Your task to perform on an android device: What's on the menu at Red Lobster? Image 0: 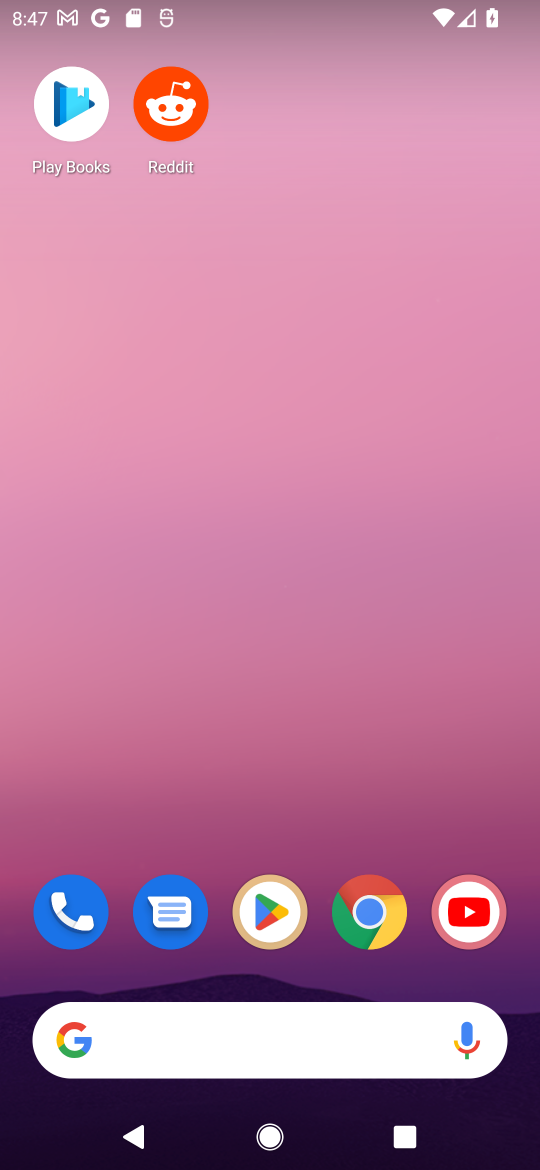
Step 0: click (376, 916)
Your task to perform on an android device: What's on the menu at Red Lobster? Image 1: 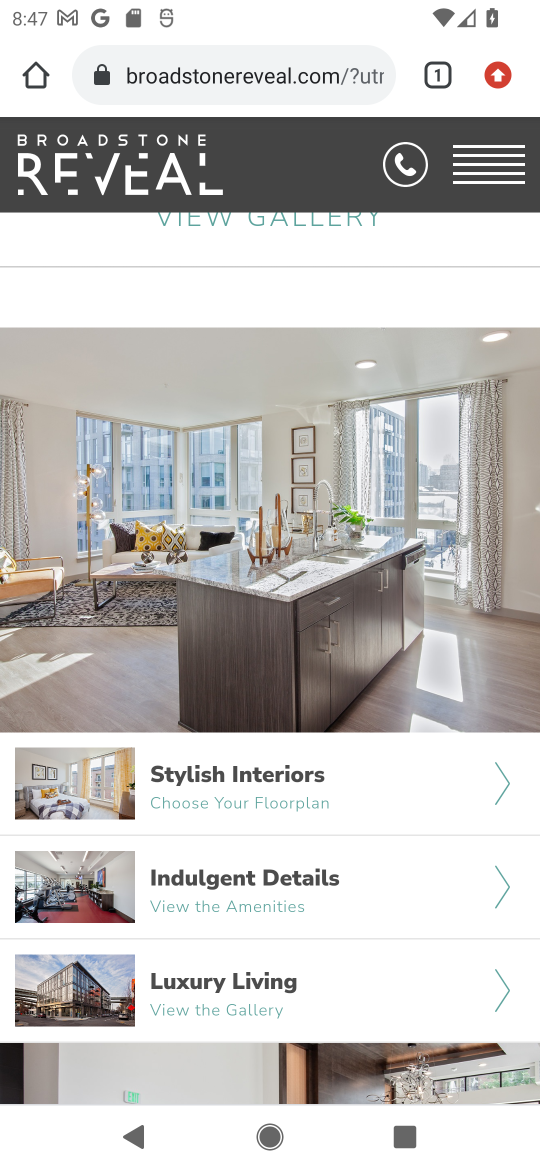
Step 1: click (297, 56)
Your task to perform on an android device: What's on the menu at Red Lobster? Image 2: 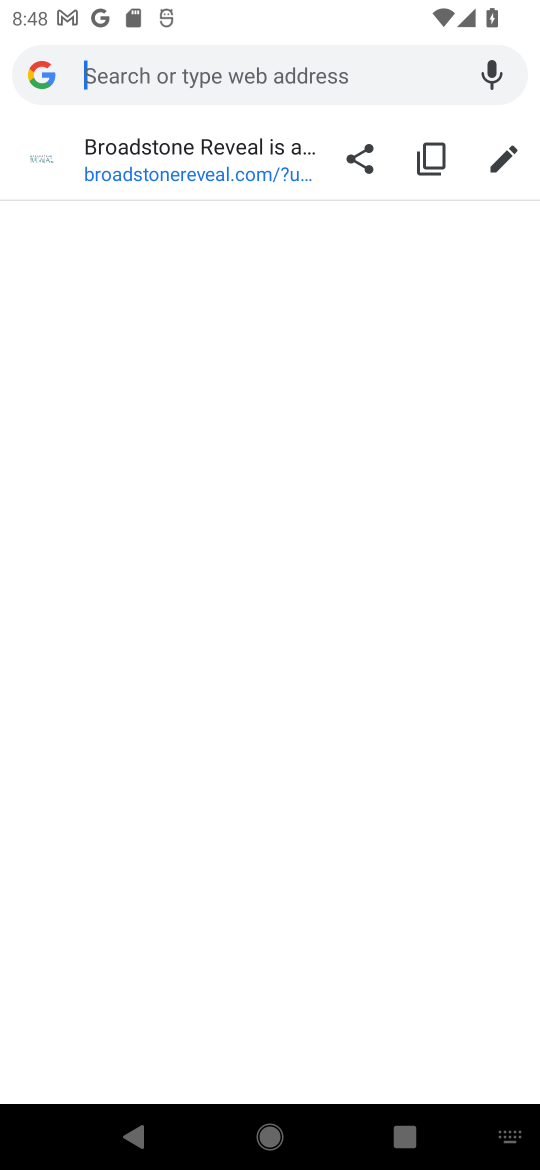
Step 2: type "menu at red lobster?"
Your task to perform on an android device: What's on the menu at Red Lobster? Image 3: 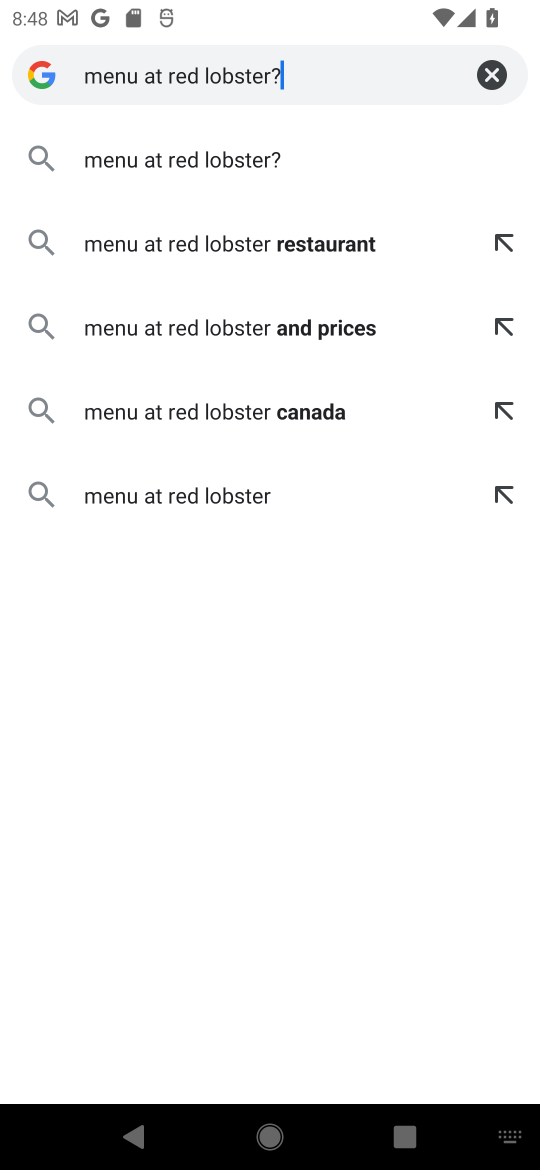
Step 3: click (134, 155)
Your task to perform on an android device: What's on the menu at Red Lobster? Image 4: 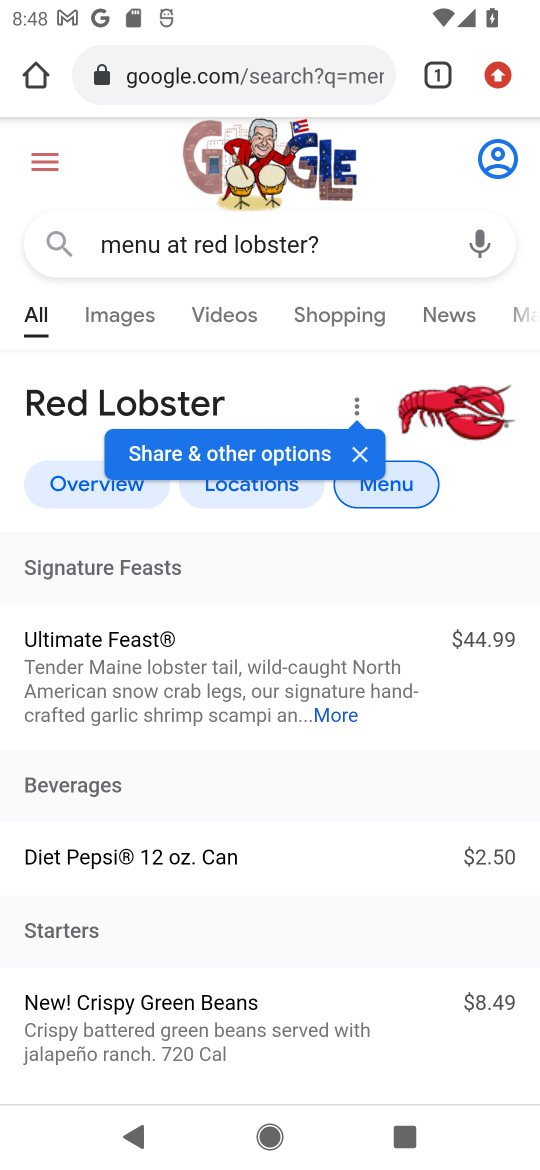
Step 4: drag from (262, 826) to (283, 166)
Your task to perform on an android device: What's on the menu at Red Lobster? Image 5: 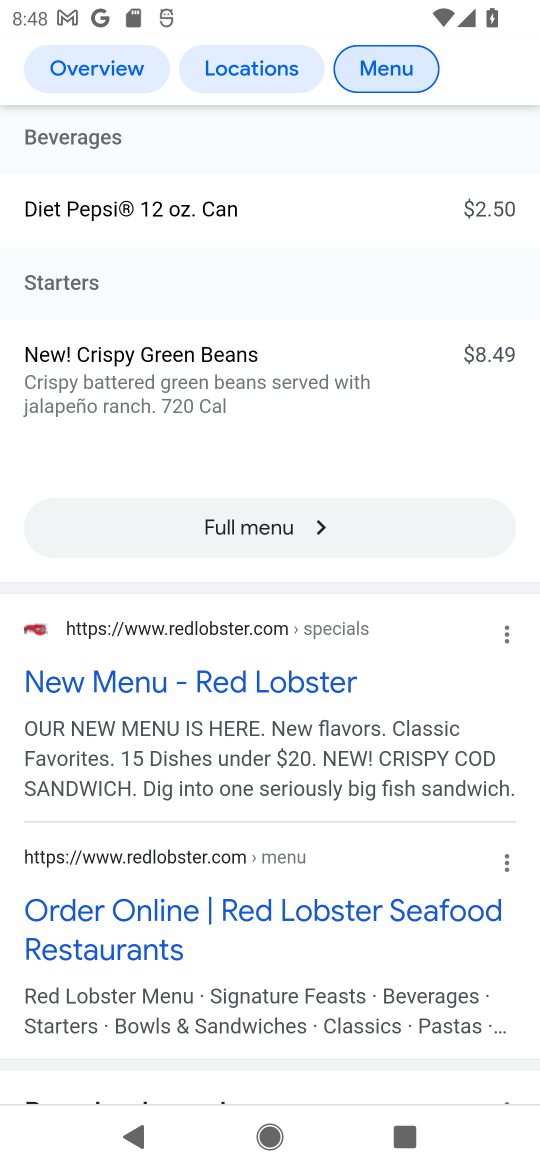
Step 5: click (118, 677)
Your task to perform on an android device: What's on the menu at Red Lobster? Image 6: 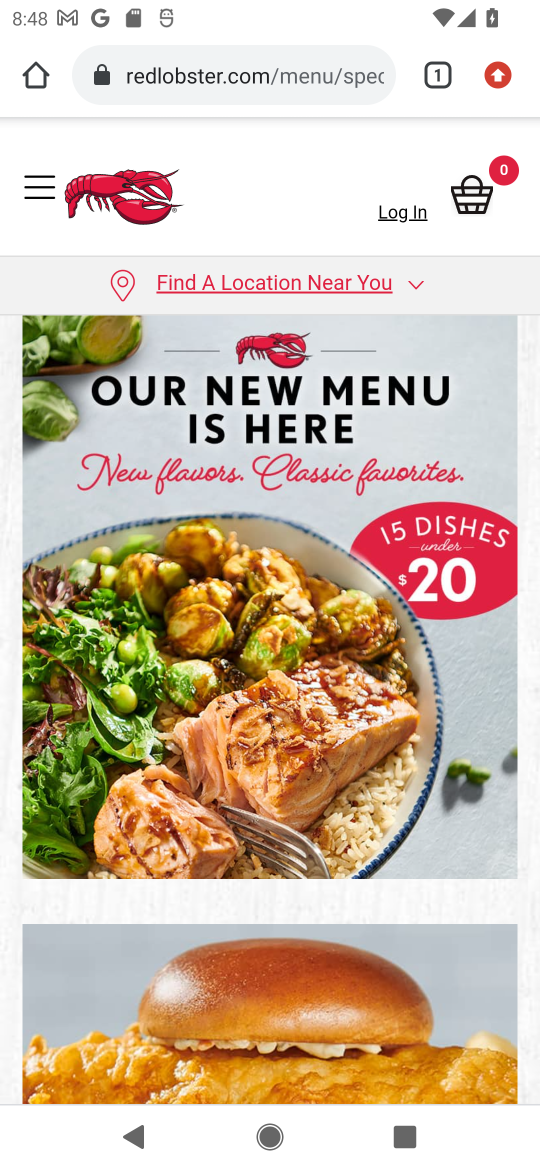
Step 6: task complete